Your task to perform on an android device: change notification settings in the gmail app Image 0: 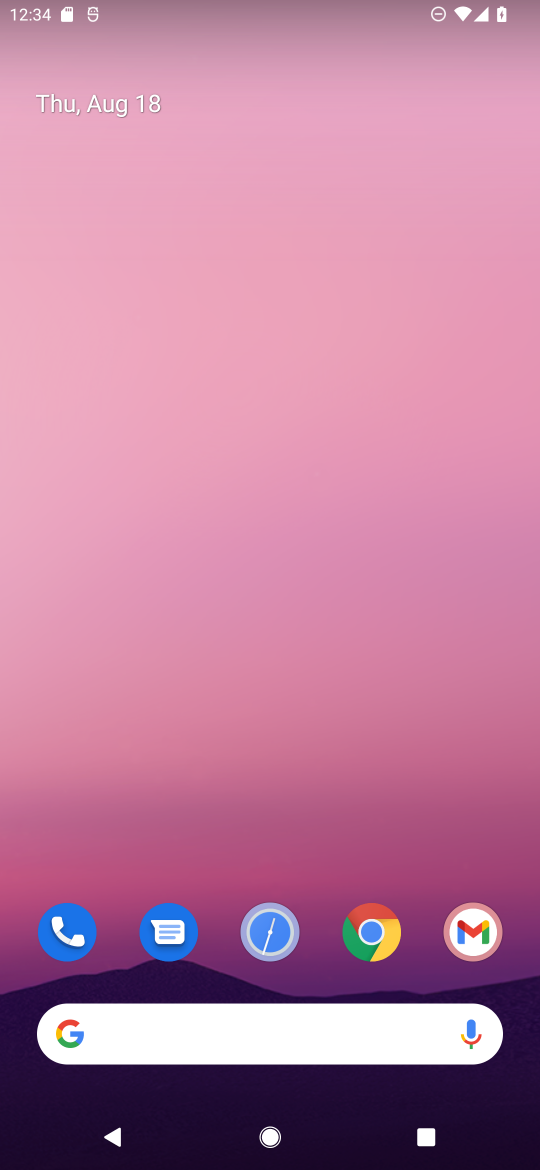
Step 0: click (472, 924)
Your task to perform on an android device: change notification settings in the gmail app Image 1: 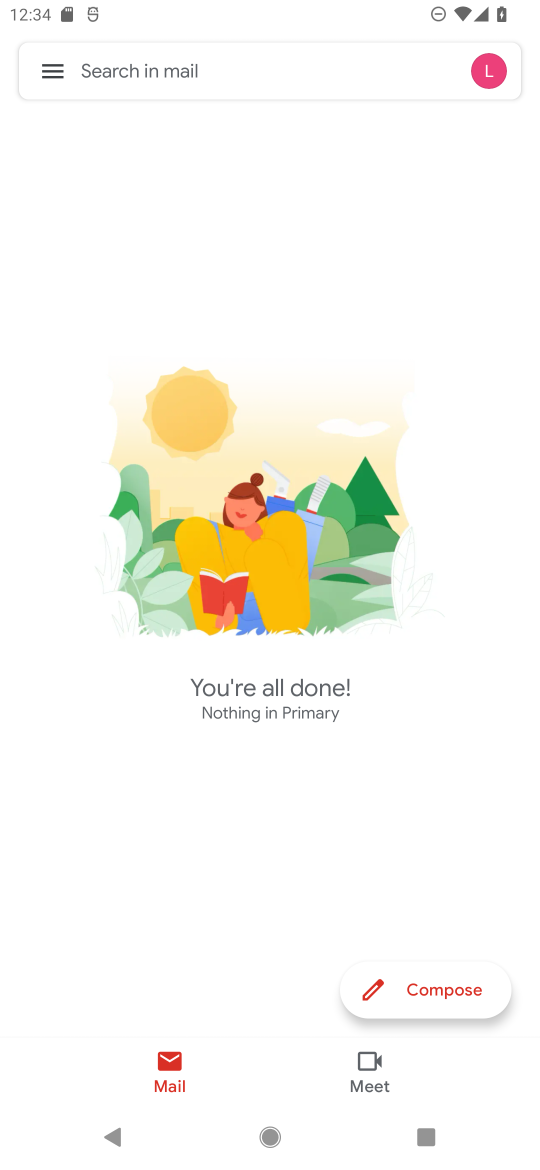
Step 1: click (44, 70)
Your task to perform on an android device: change notification settings in the gmail app Image 2: 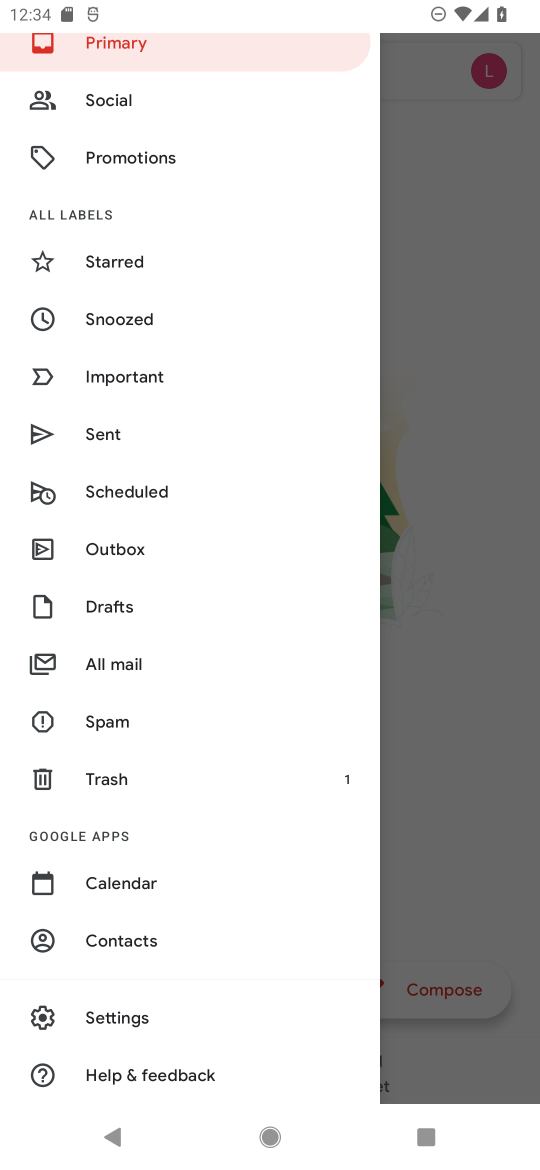
Step 2: click (120, 1016)
Your task to perform on an android device: change notification settings in the gmail app Image 3: 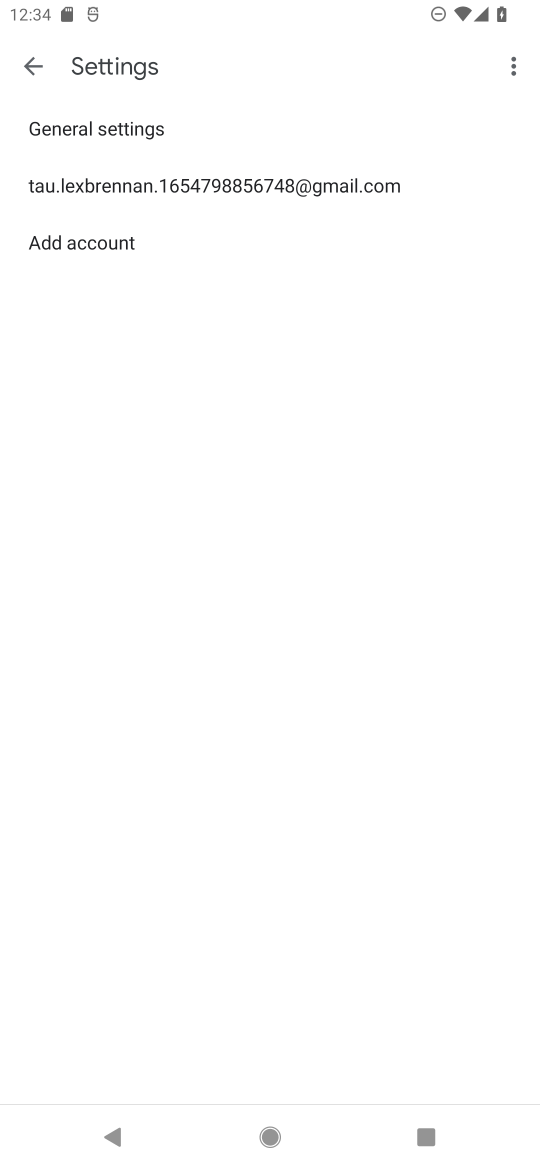
Step 3: click (104, 127)
Your task to perform on an android device: change notification settings in the gmail app Image 4: 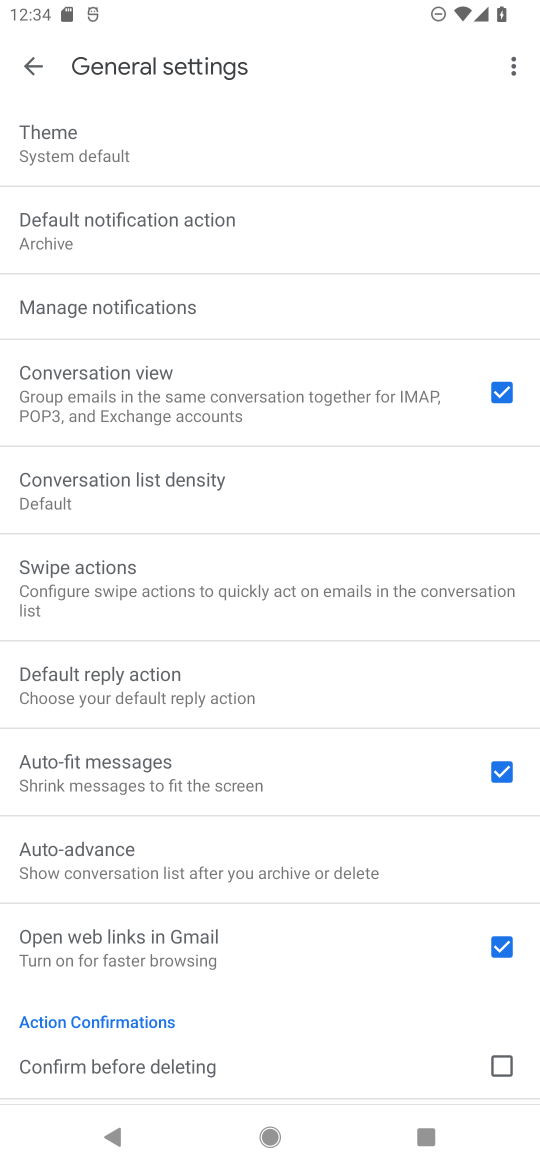
Step 4: click (106, 302)
Your task to perform on an android device: change notification settings in the gmail app Image 5: 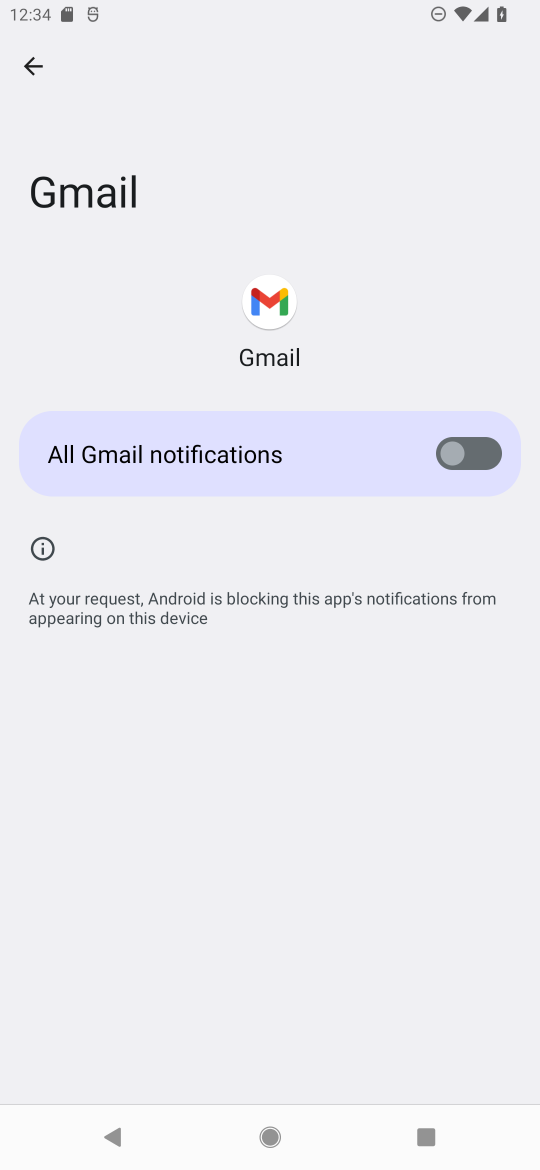
Step 5: click (453, 448)
Your task to perform on an android device: change notification settings in the gmail app Image 6: 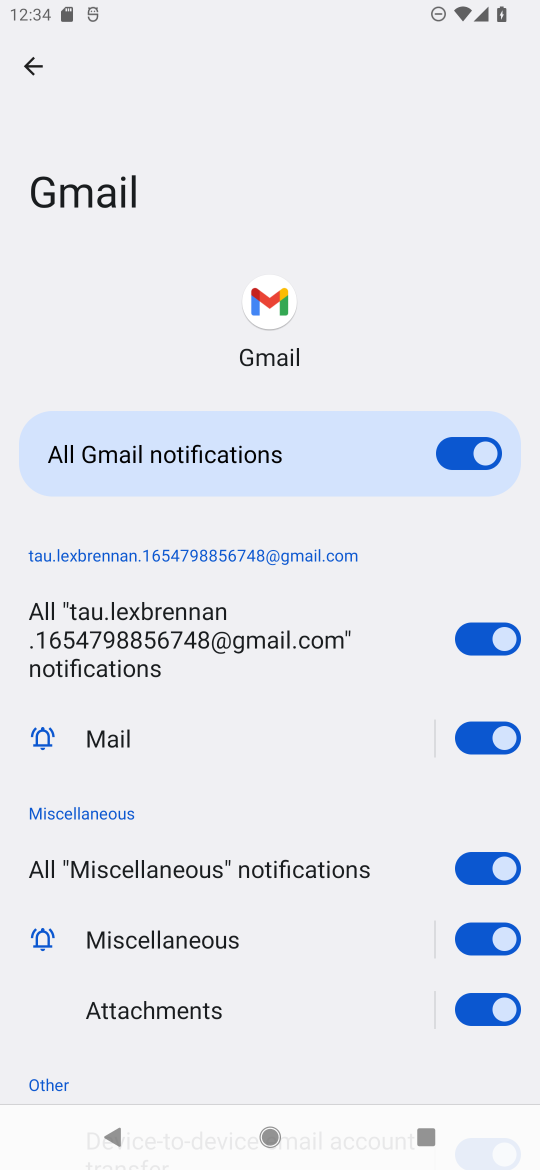
Step 6: task complete